Your task to perform on an android device: Go to privacy settings Image 0: 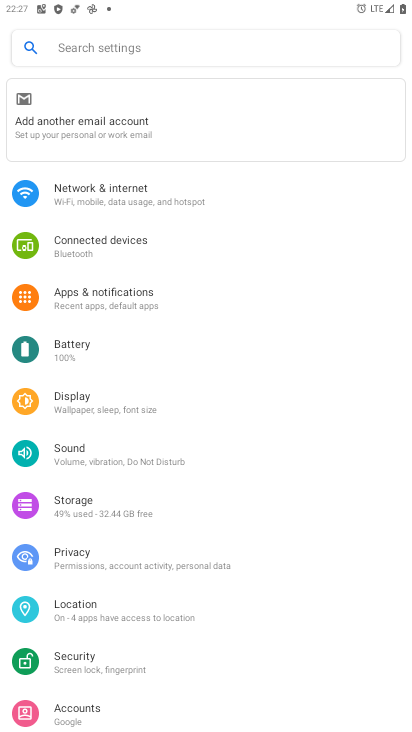
Step 0: click (199, 561)
Your task to perform on an android device: Go to privacy settings Image 1: 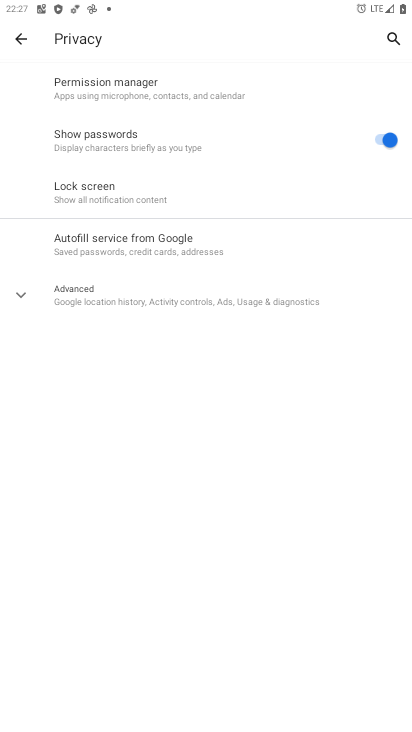
Step 1: task complete